Your task to perform on an android device: open chrome and create a bookmark for the current page Image 0: 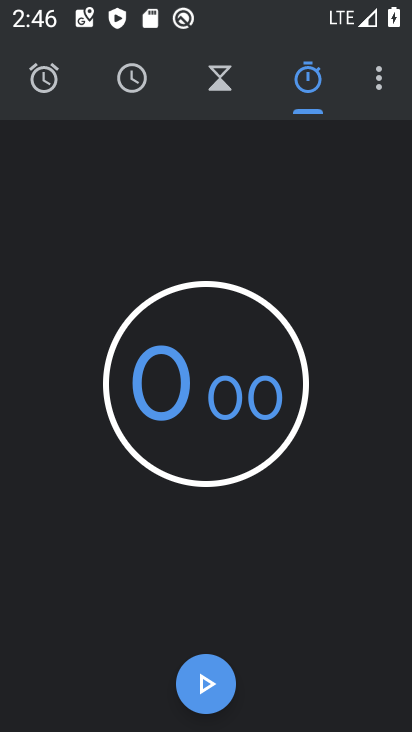
Step 0: press home button
Your task to perform on an android device: open chrome and create a bookmark for the current page Image 1: 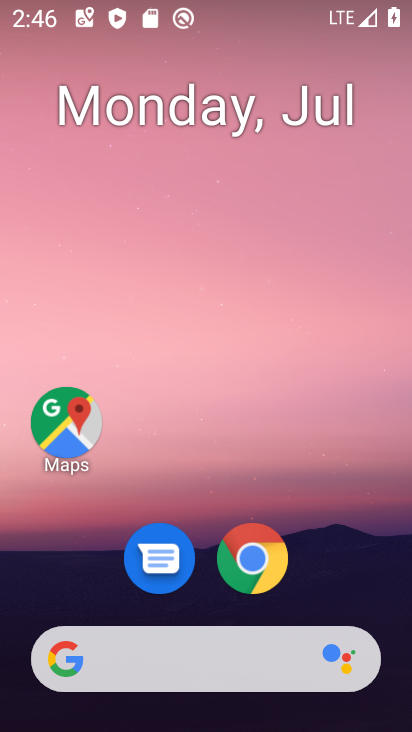
Step 1: drag from (367, 561) to (342, 139)
Your task to perform on an android device: open chrome and create a bookmark for the current page Image 2: 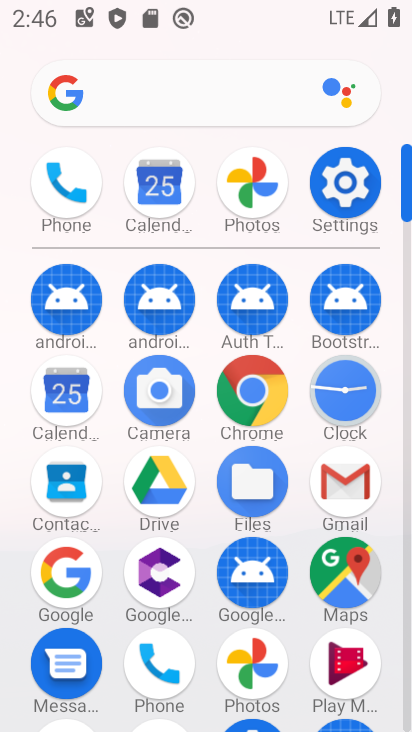
Step 2: click (264, 389)
Your task to perform on an android device: open chrome and create a bookmark for the current page Image 3: 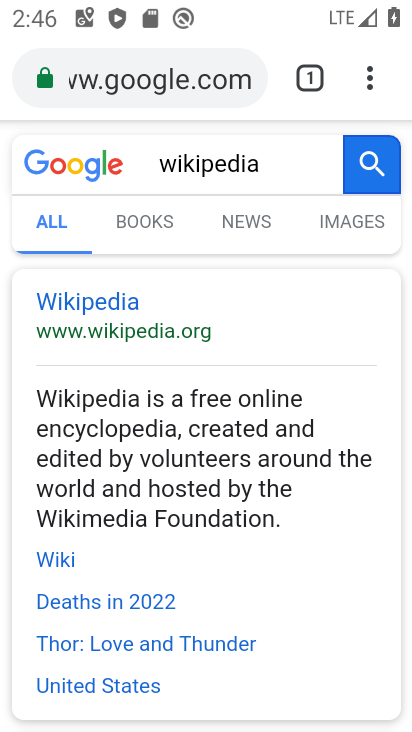
Step 3: click (368, 86)
Your task to perform on an android device: open chrome and create a bookmark for the current page Image 4: 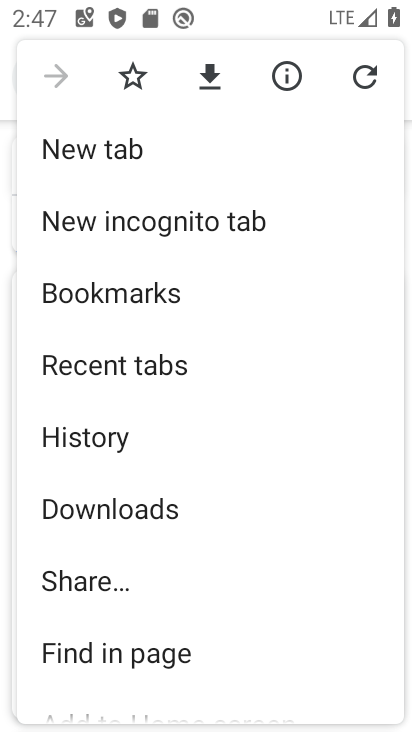
Step 4: click (133, 76)
Your task to perform on an android device: open chrome and create a bookmark for the current page Image 5: 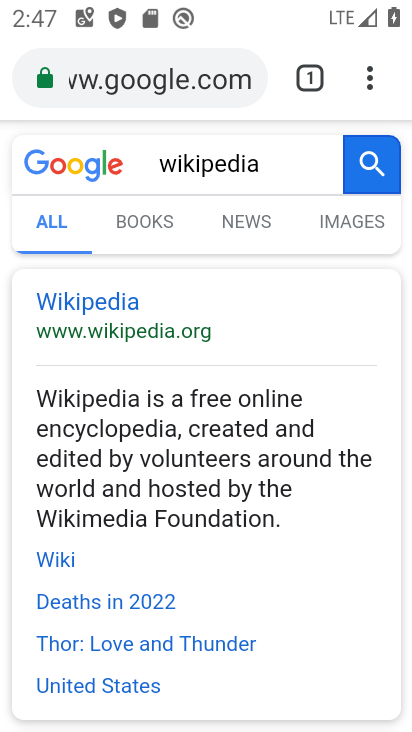
Step 5: task complete